Your task to perform on an android device: Install the Uber app Image 0: 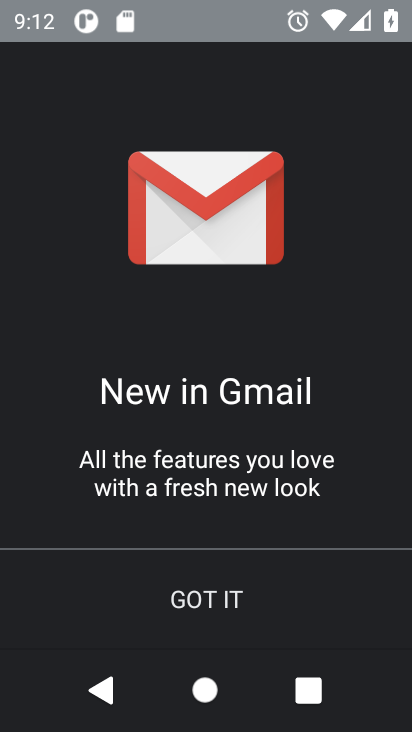
Step 0: click (232, 585)
Your task to perform on an android device: Install the Uber app Image 1: 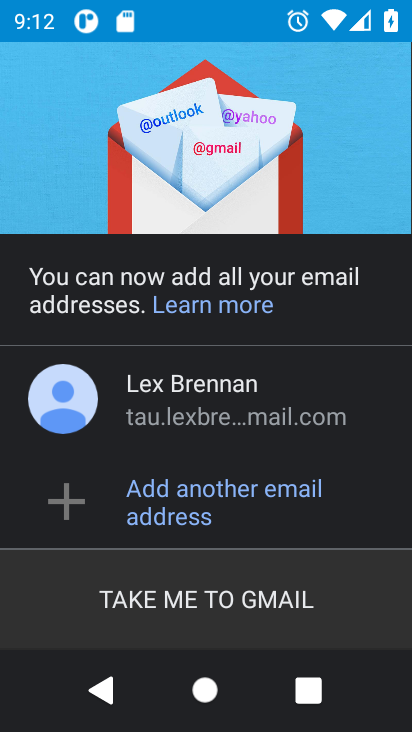
Step 1: click (159, 402)
Your task to perform on an android device: Install the Uber app Image 2: 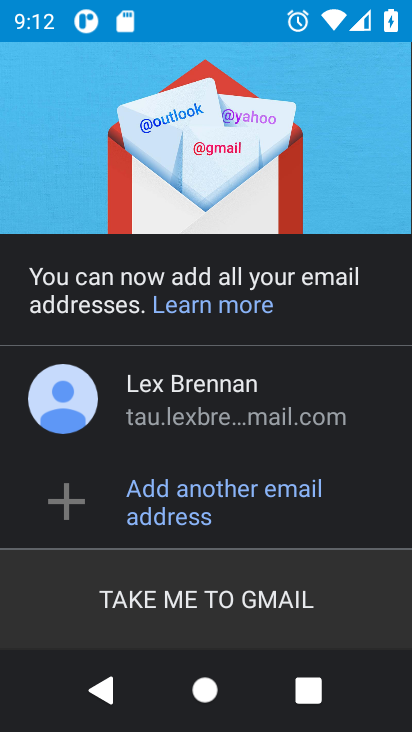
Step 2: click (245, 404)
Your task to perform on an android device: Install the Uber app Image 3: 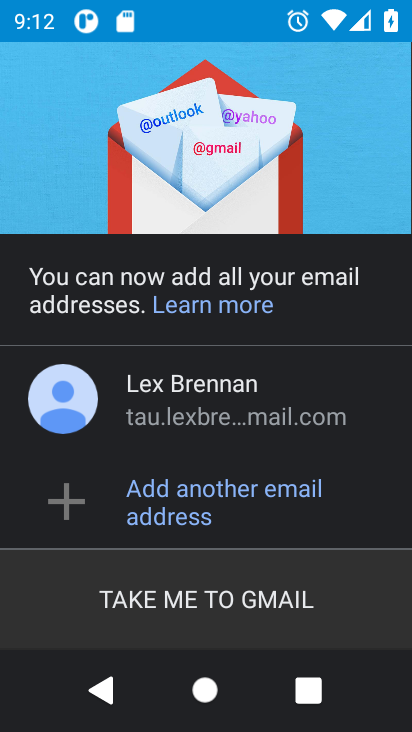
Step 3: click (208, 615)
Your task to perform on an android device: Install the Uber app Image 4: 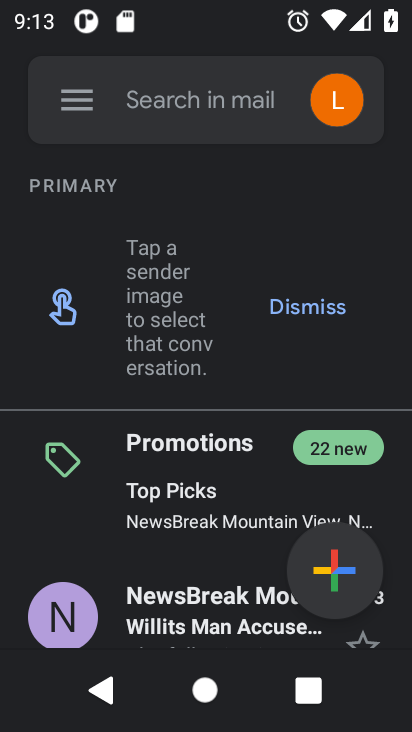
Step 4: task complete